Your task to perform on an android device: set the stopwatch Image 0: 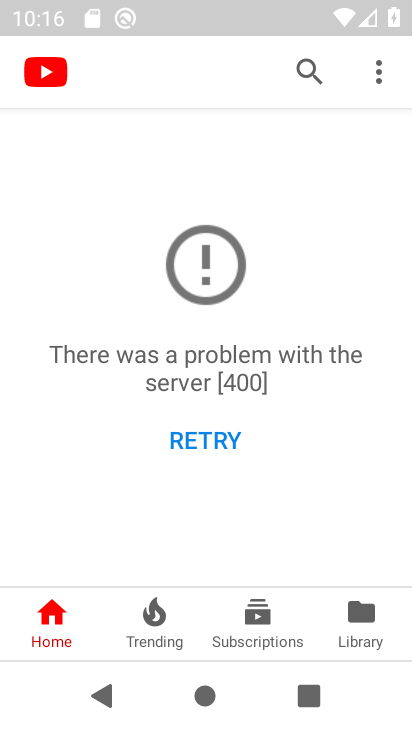
Step 0: press home button
Your task to perform on an android device: set the stopwatch Image 1: 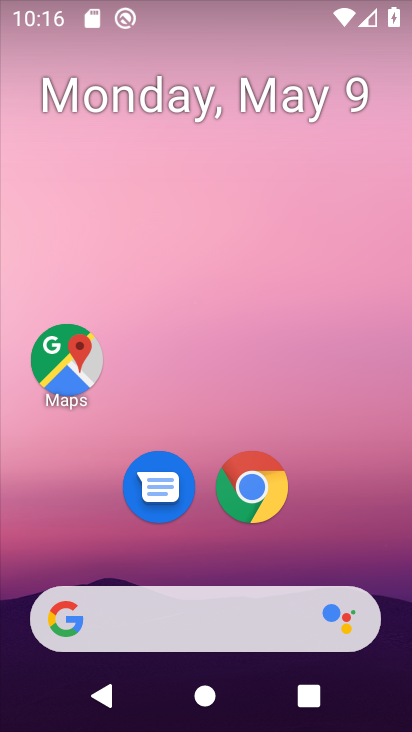
Step 1: drag from (347, 528) to (148, 72)
Your task to perform on an android device: set the stopwatch Image 2: 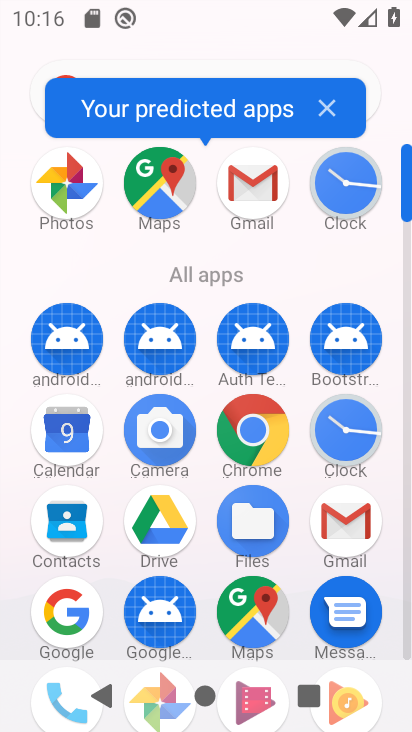
Step 2: click (345, 193)
Your task to perform on an android device: set the stopwatch Image 3: 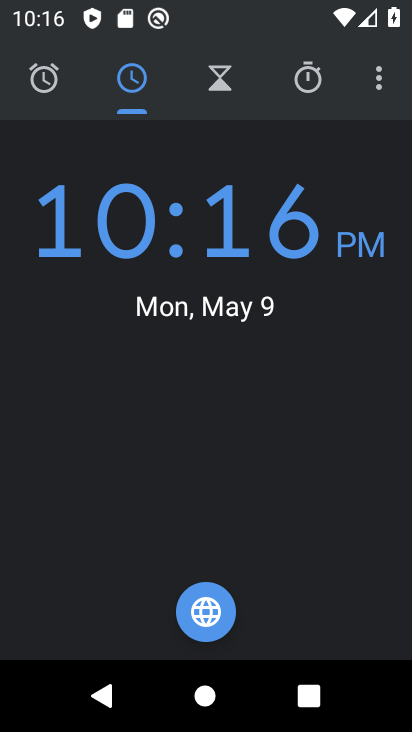
Step 3: click (311, 88)
Your task to perform on an android device: set the stopwatch Image 4: 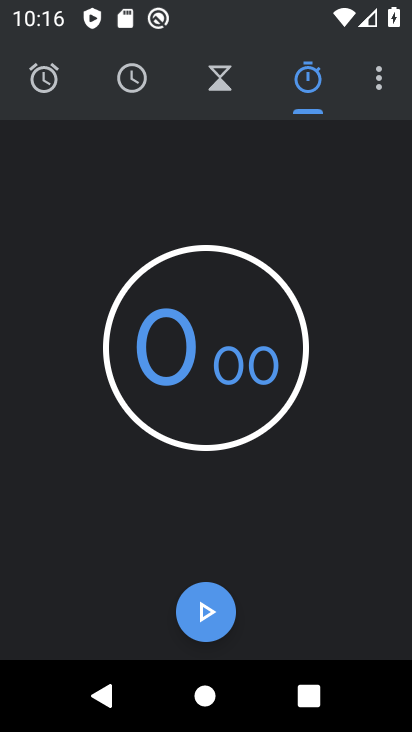
Step 4: click (206, 607)
Your task to perform on an android device: set the stopwatch Image 5: 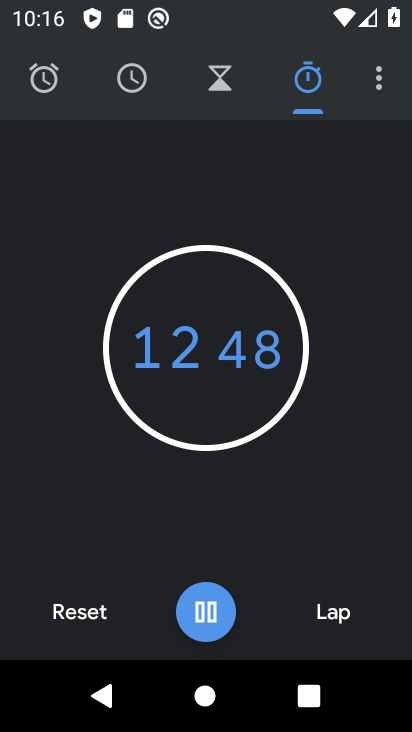
Step 5: click (211, 612)
Your task to perform on an android device: set the stopwatch Image 6: 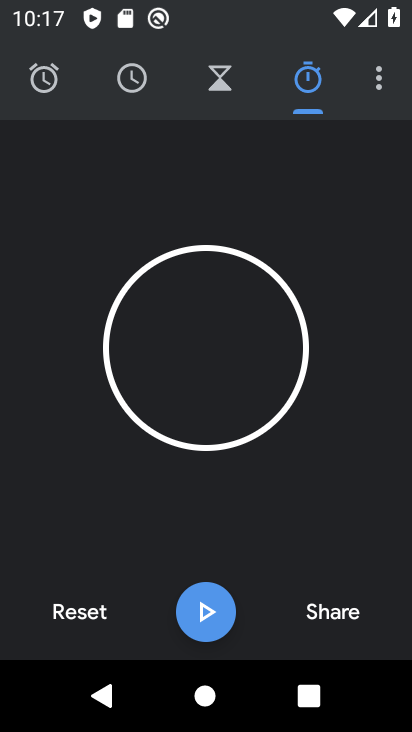
Step 6: task complete